Your task to perform on an android device: Check the news Image 0: 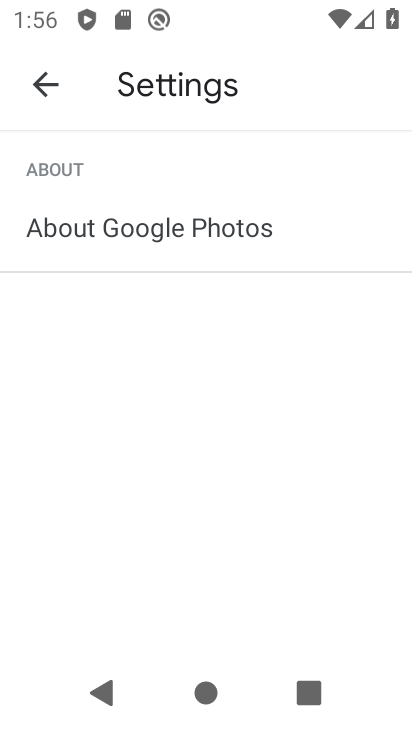
Step 0: press home button
Your task to perform on an android device: Check the news Image 1: 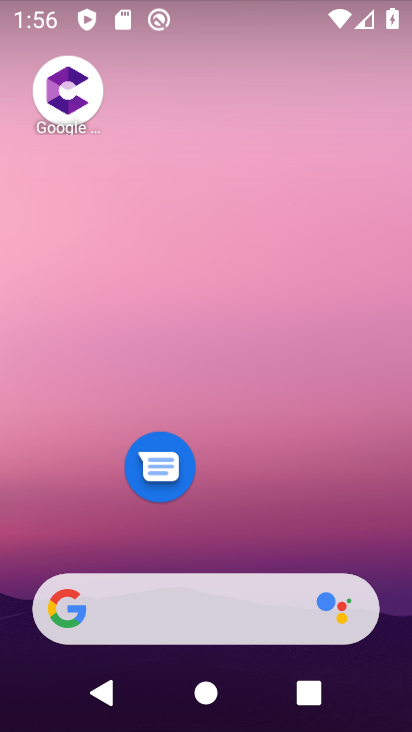
Step 1: drag from (250, 540) to (274, 43)
Your task to perform on an android device: Check the news Image 2: 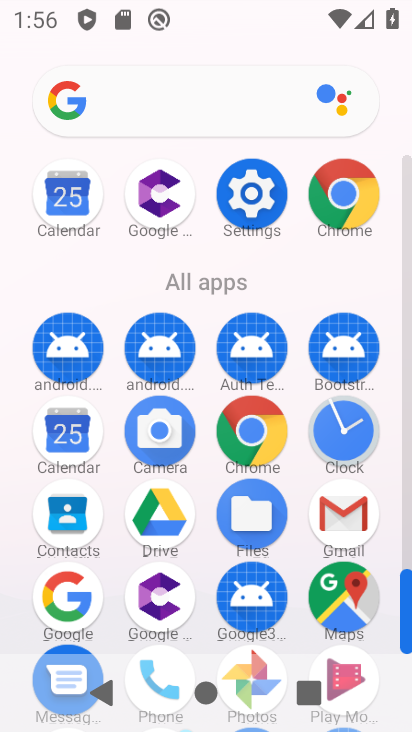
Step 2: click (164, 101)
Your task to perform on an android device: Check the news Image 3: 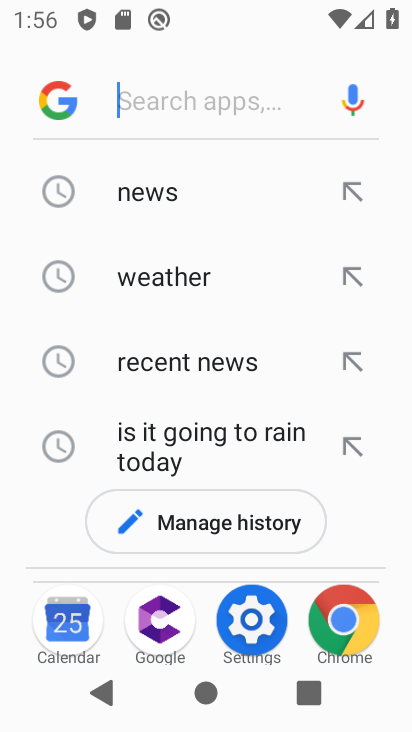
Step 3: click (210, 203)
Your task to perform on an android device: Check the news Image 4: 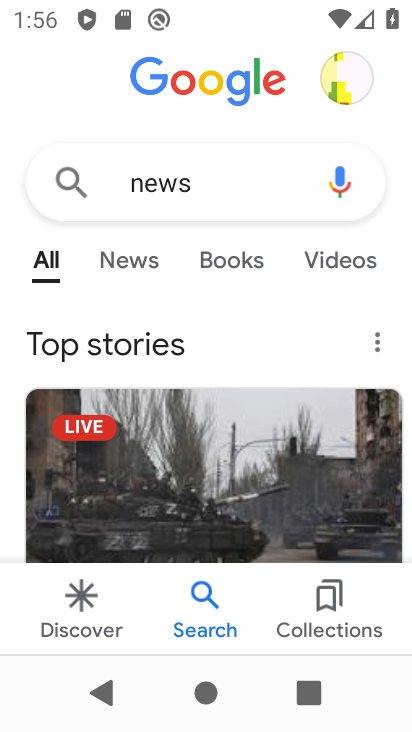
Step 4: click (133, 256)
Your task to perform on an android device: Check the news Image 5: 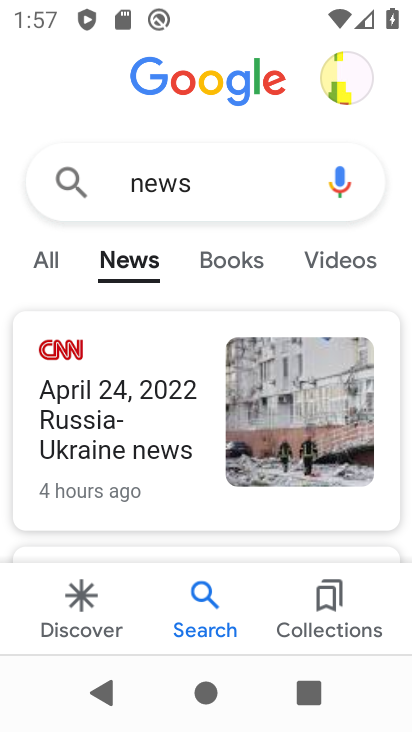
Step 5: task complete